Your task to perform on an android device: Open Maps and search for coffee Image 0: 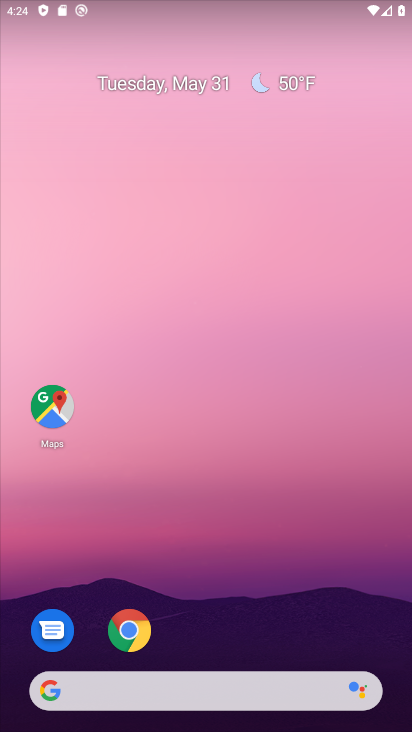
Step 0: click (66, 420)
Your task to perform on an android device: Open Maps and search for coffee Image 1: 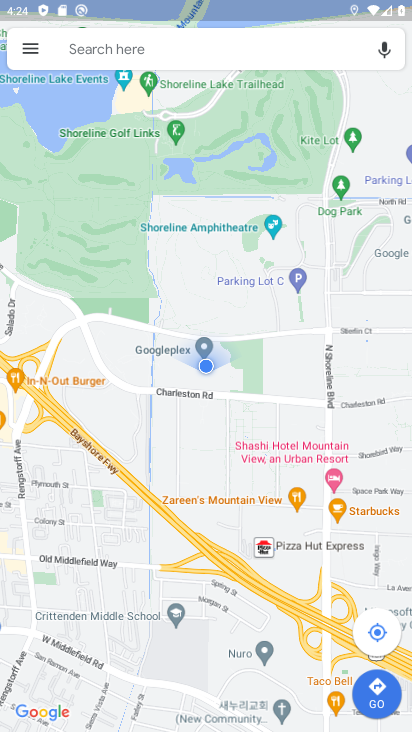
Step 1: click (168, 48)
Your task to perform on an android device: Open Maps and search for coffee Image 2: 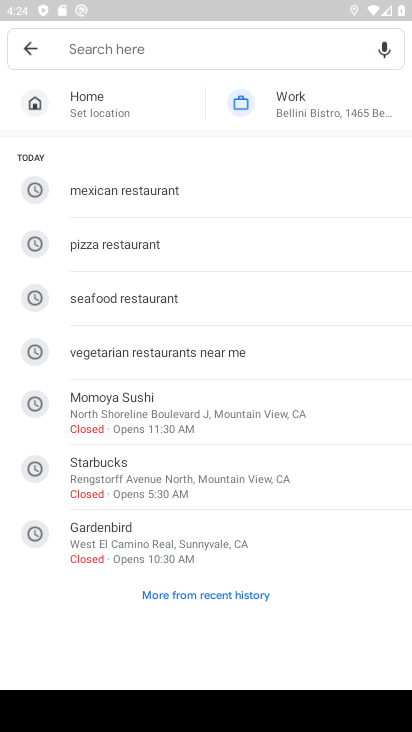
Step 2: type "coffee "
Your task to perform on an android device: Open Maps and search for coffee Image 3: 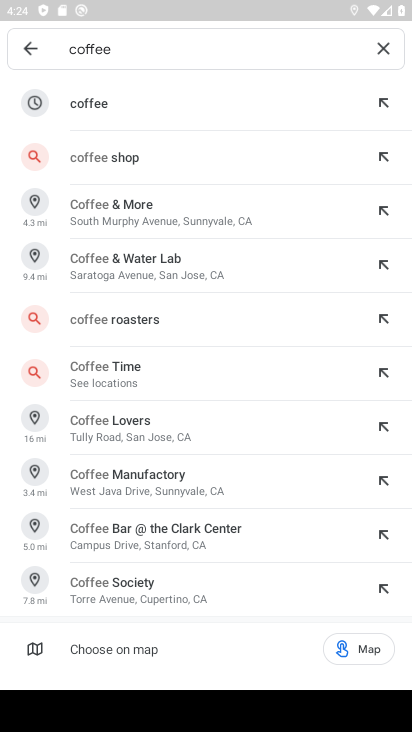
Step 3: click (163, 120)
Your task to perform on an android device: Open Maps and search for coffee Image 4: 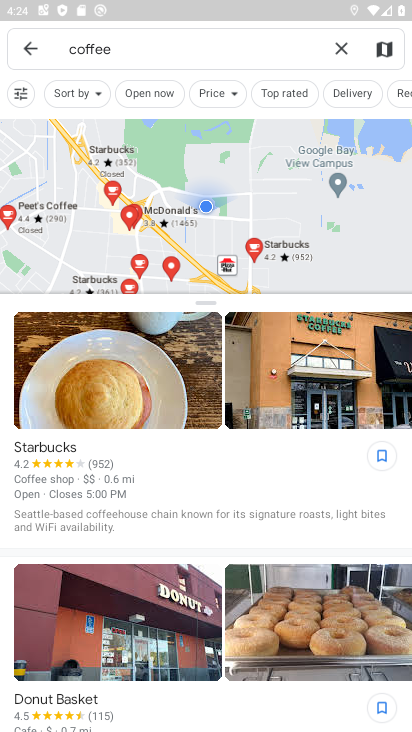
Step 4: task complete